Your task to perform on an android device: Open ESPN.com Image 0: 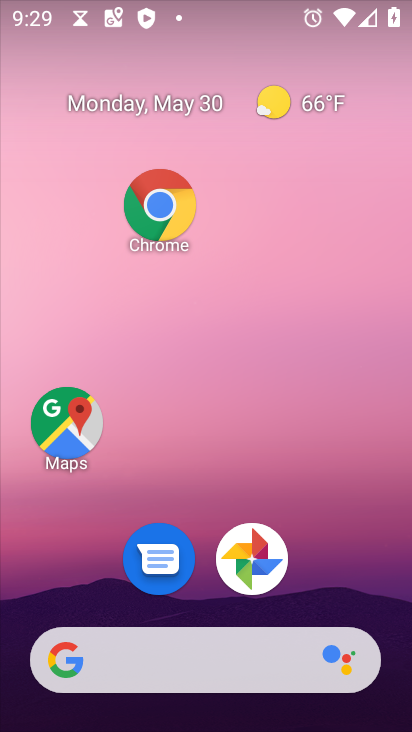
Step 0: drag from (277, 673) to (231, 193)
Your task to perform on an android device: Open ESPN.com Image 1: 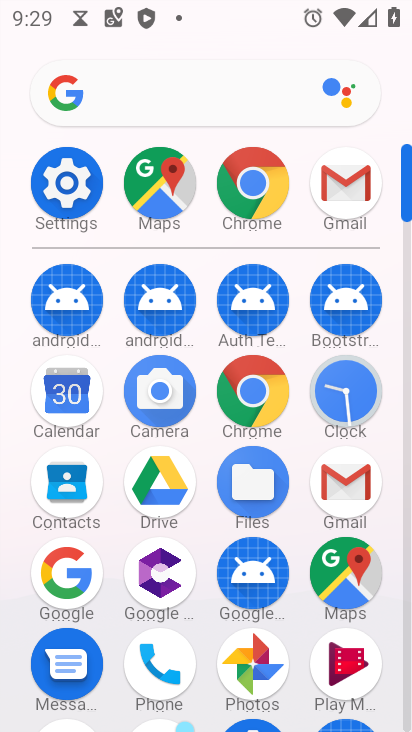
Step 1: click (248, 195)
Your task to perform on an android device: Open ESPN.com Image 2: 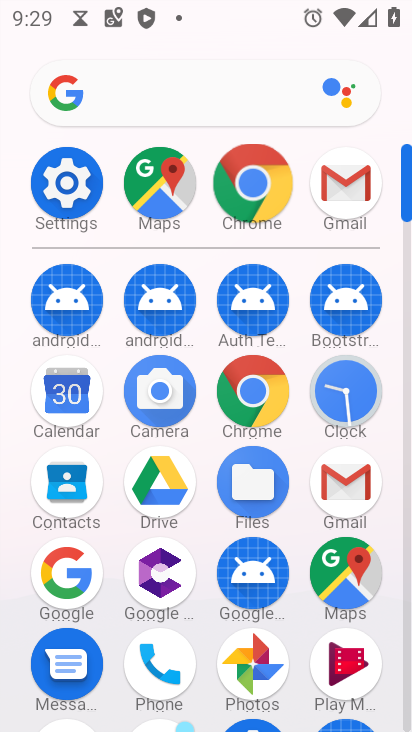
Step 2: click (251, 194)
Your task to perform on an android device: Open ESPN.com Image 3: 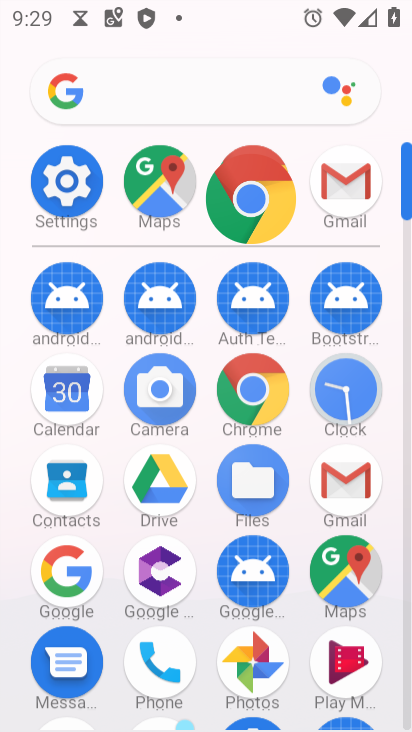
Step 3: click (253, 194)
Your task to perform on an android device: Open ESPN.com Image 4: 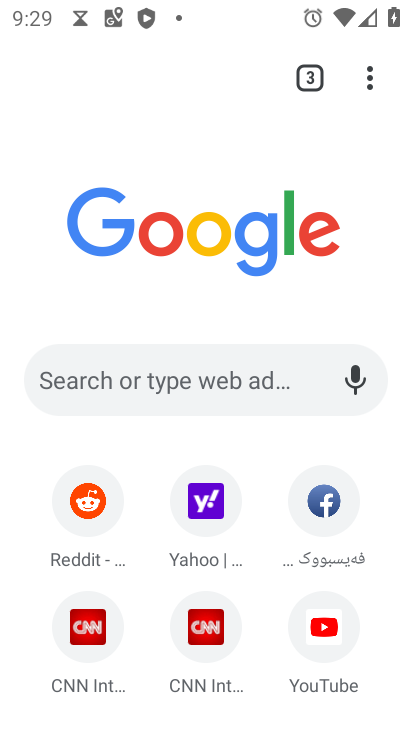
Step 4: click (79, 374)
Your task to perform on an android device: Open ESPN.com Image 5: 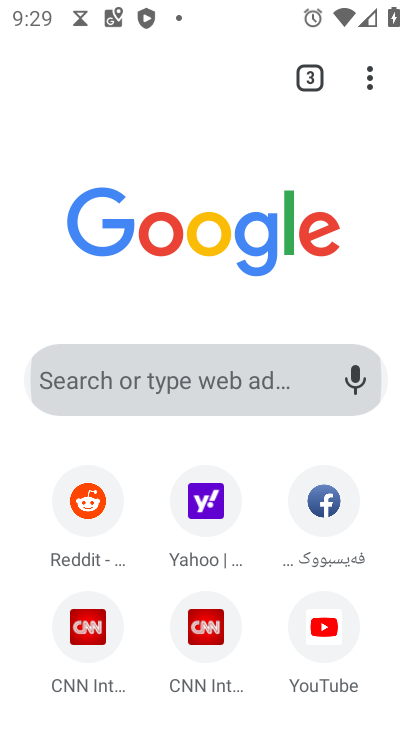
Step 5: click (79, 374)
Your task to perform on an android device: Open ESPN.com Image 6: 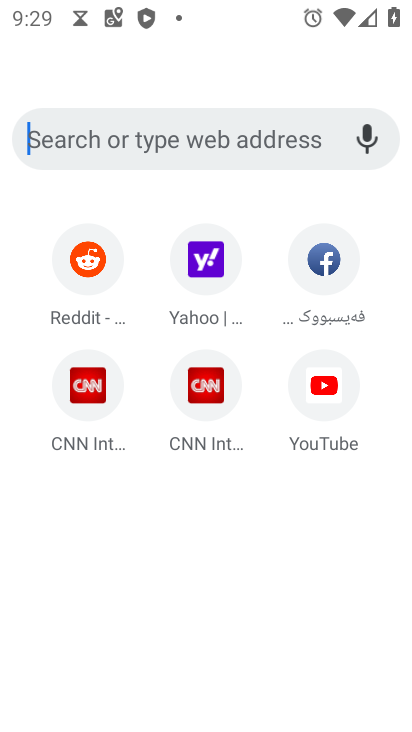
Step 6: click (79, 374)
Your task to perform on an android device: Open ESPN.com Image 7: 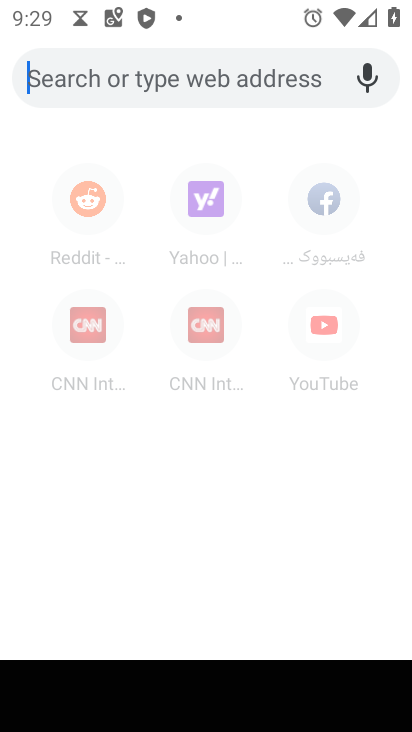
Step 7: click (77, 373)
Your task to perform on an android device: Open ESPN.com Image 8: 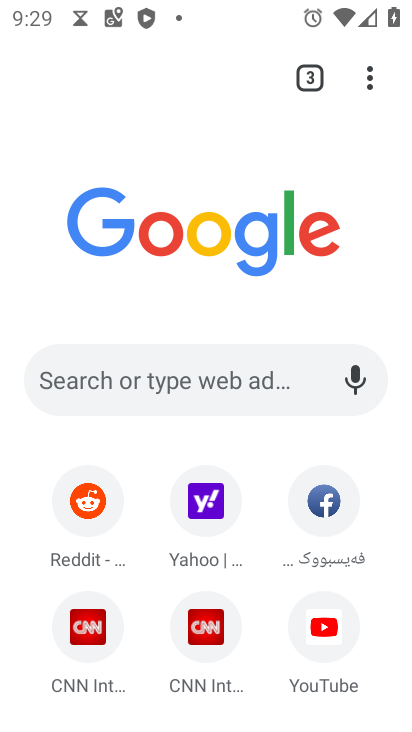
Step 8: click (64, 366)
Your task to perform on an android device: Open ESPN.com Image 9: 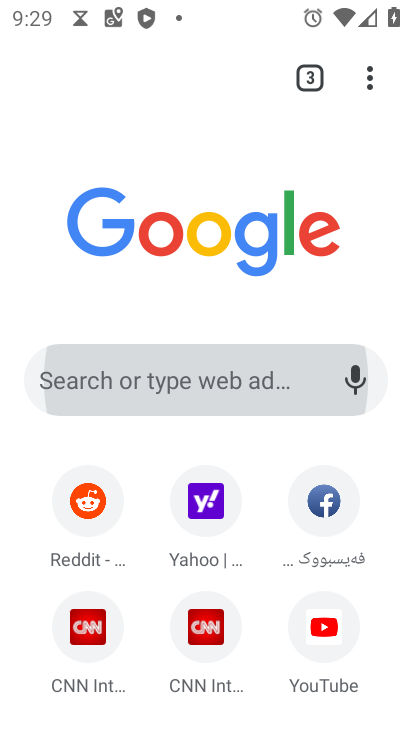
Step 9: click (64, 366)
Your task to perform on an android device: Open ESPN.com Image 10: 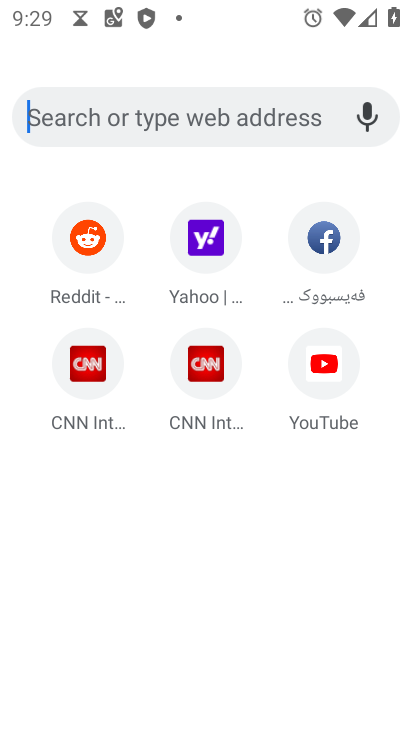
Step 10: click (66, 369)
Your task to perform on an android device: Open ESPN.com Image 11: 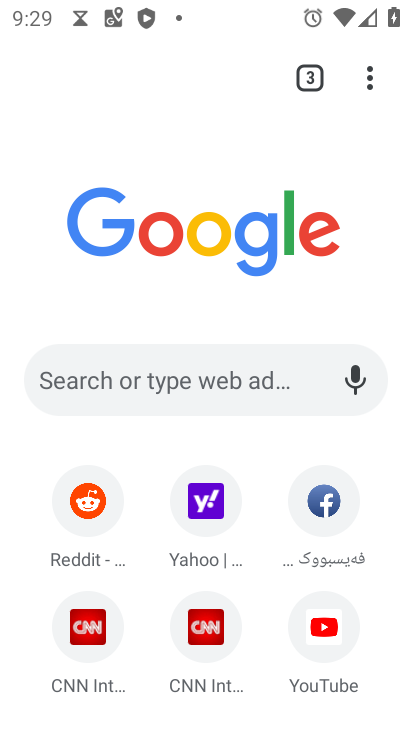
Step 11: click (86, 635)
Your task to perform on an android device: Open ESPN.com Image 12: 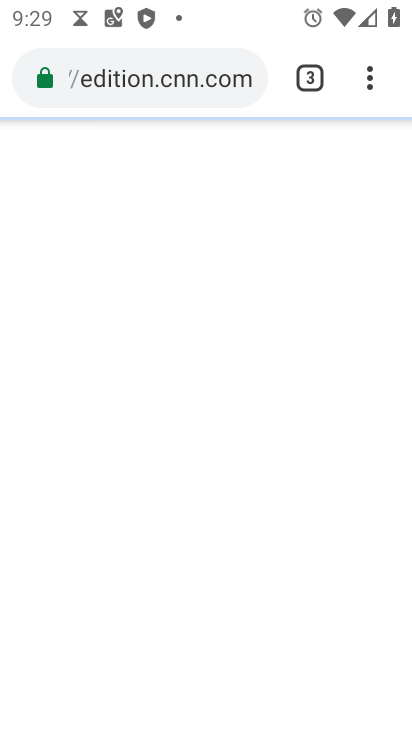
Step 12: click (86, 635)
Your task to perform on an android device: Open ESPN.com Image 13: 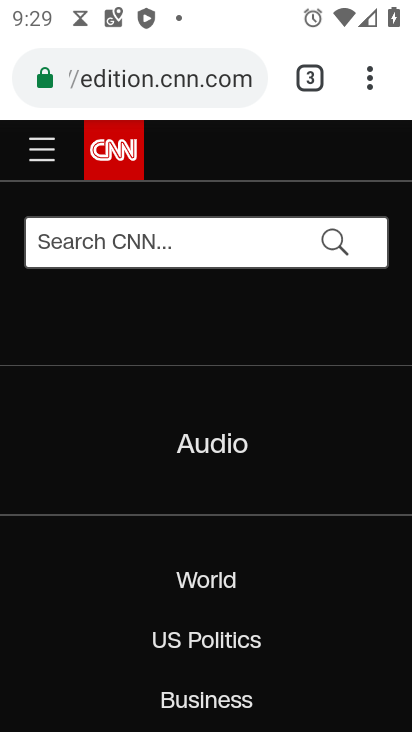
Step 13: press back button
Your task to perform on an android device: Open ESPN.com Image 14: 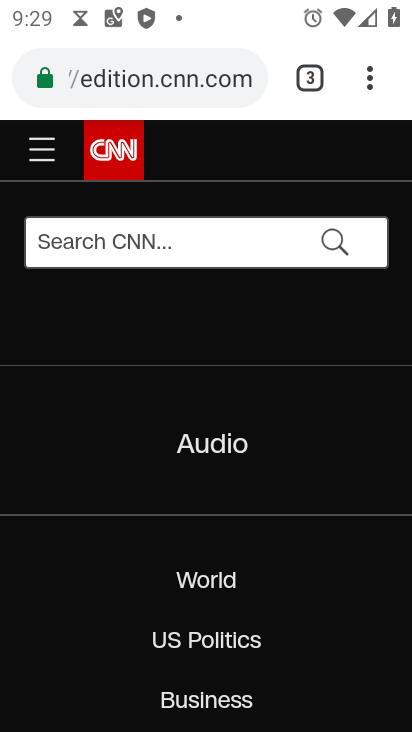
Step 14: press back button
Your task to perform on an android device: Open ESPN.com Image 15: 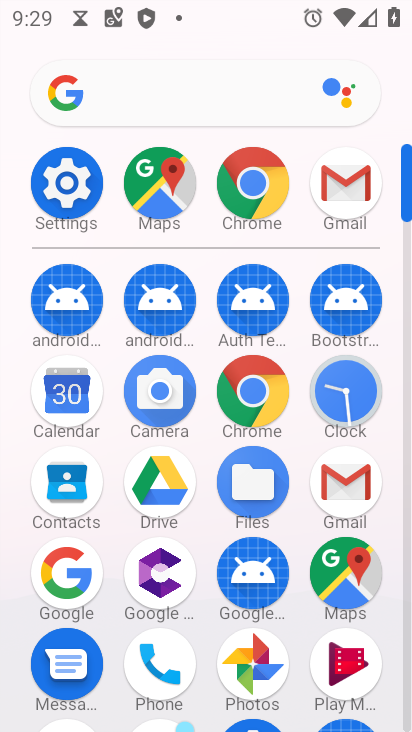
Step 15: click (251, 204)
Your task to perform on an android device: Open ESPN.com Image 16: 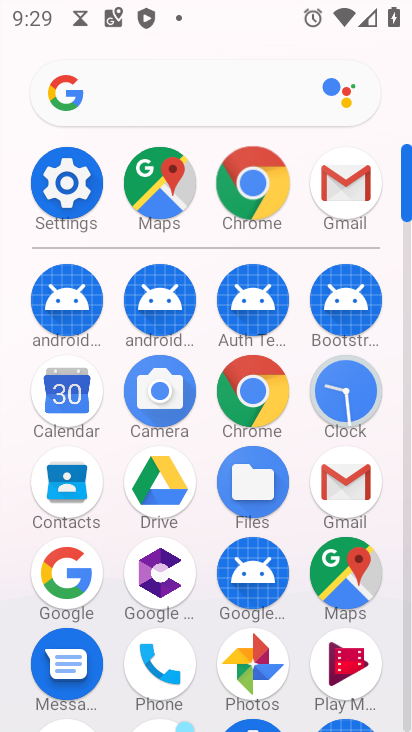
Step 16: click (251, 204)
Your task to perform on an android device: Open ESPN.com Image 17: 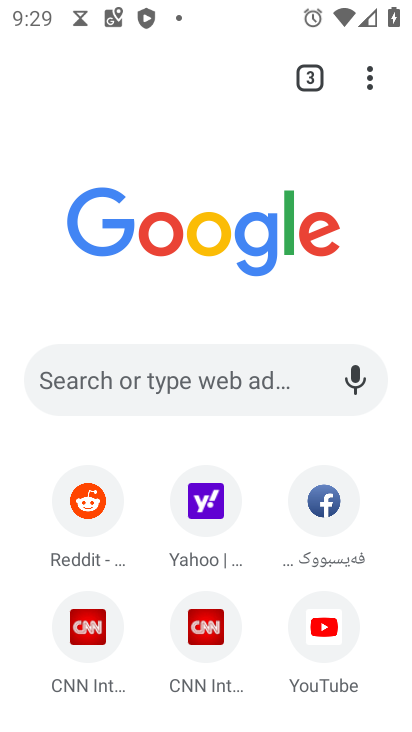
Step 17: click (70, 371)
Your task to perform on an android device: Open ESPN.com Image 18: 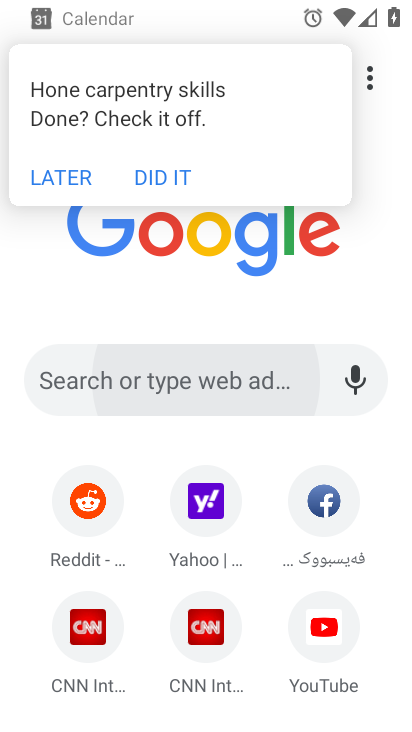
Step 18: click (69, 370)
Your task to perform on an android device: Open ESPN.com Image 19: 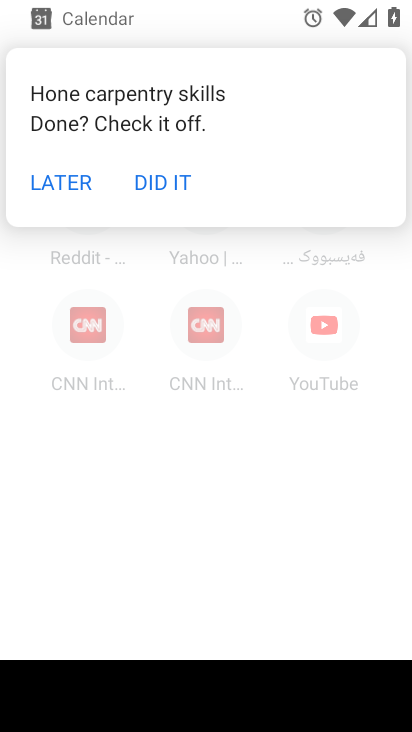
Step 19: click (52, 186)
Your task to perform on an android device: Open ESPN.com Image 20: 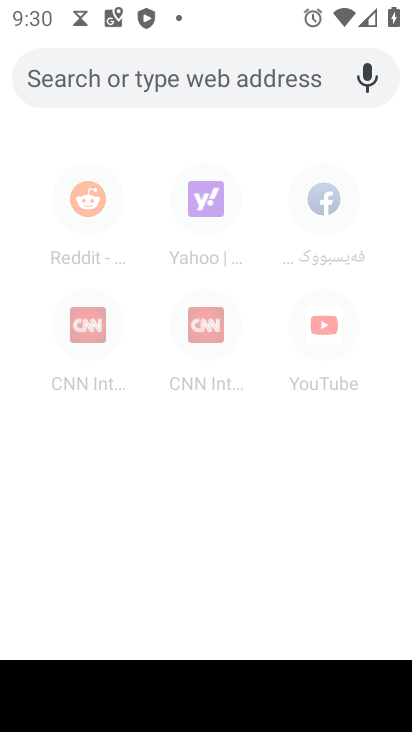
Step 20: type "espn.com"
Your task to perform on an android device: Open ESPN.com Image 21: 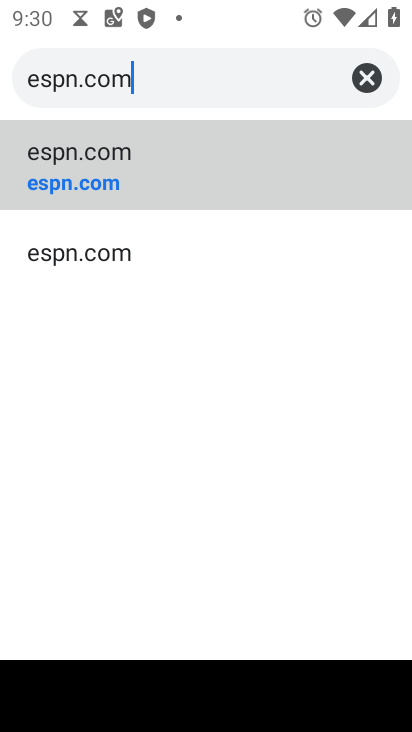
Step 21: click (71, 188)
Your task to perform on an android device: Open ESPN.com Image 22: 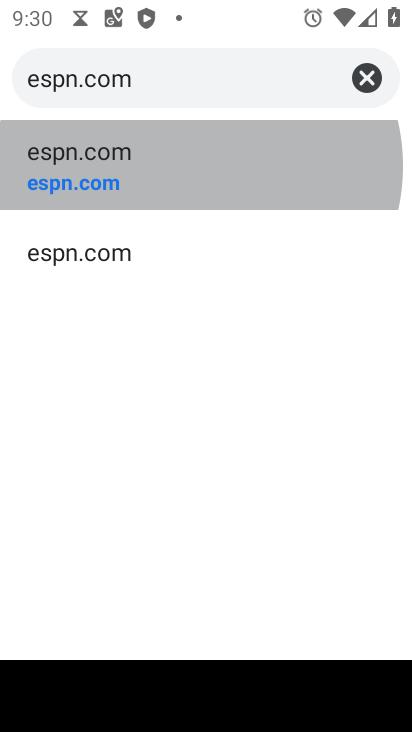
Step 22: click (72, 186)
Your task to perform on an android device: Open ESPN.com Image 23: 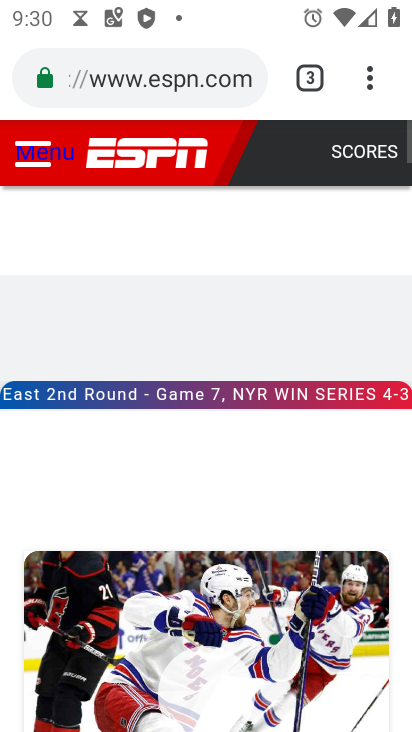
Step 23: task complete